Your task to perform on an android device: Open the clock app Image 0: 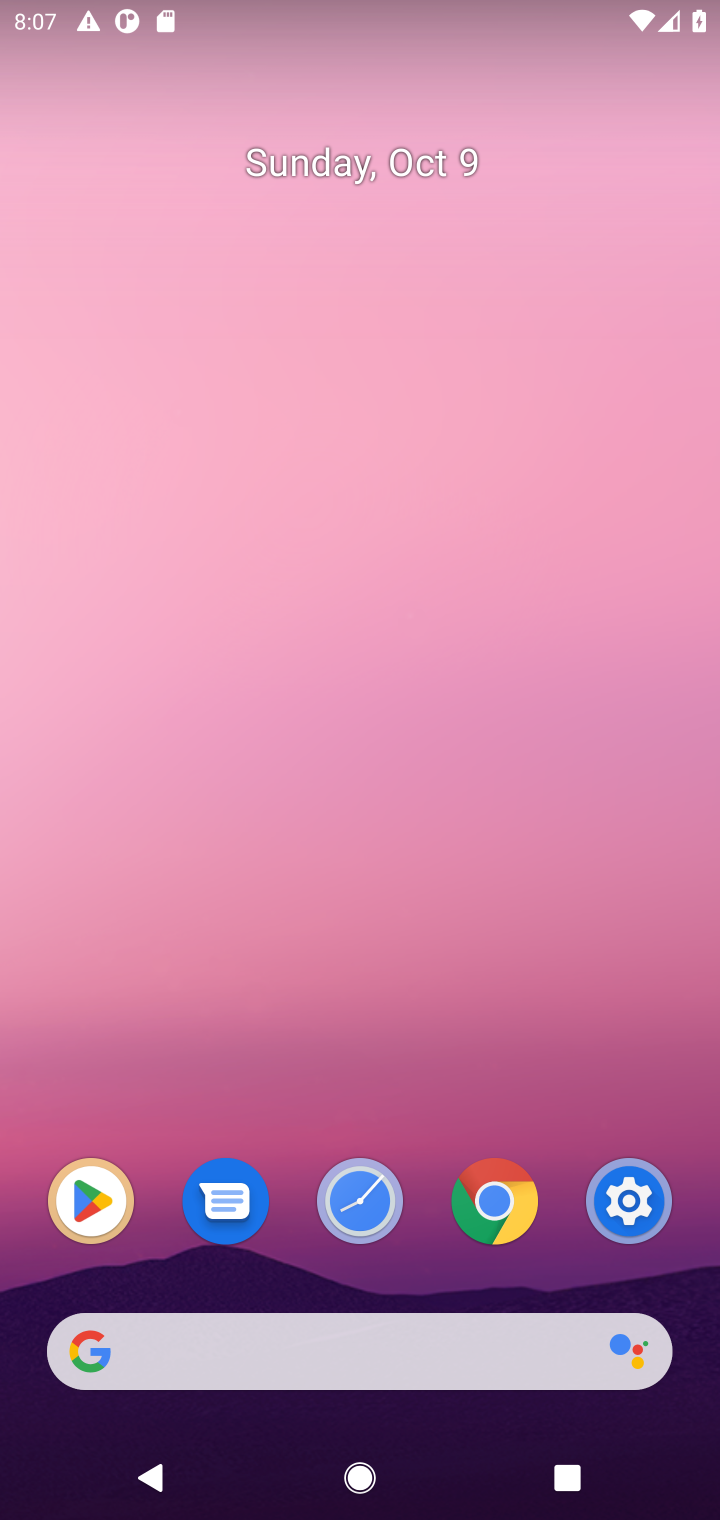
Step 0: click (369, 1193)
Your task to perform on an android device: Open the clock app Image 1: 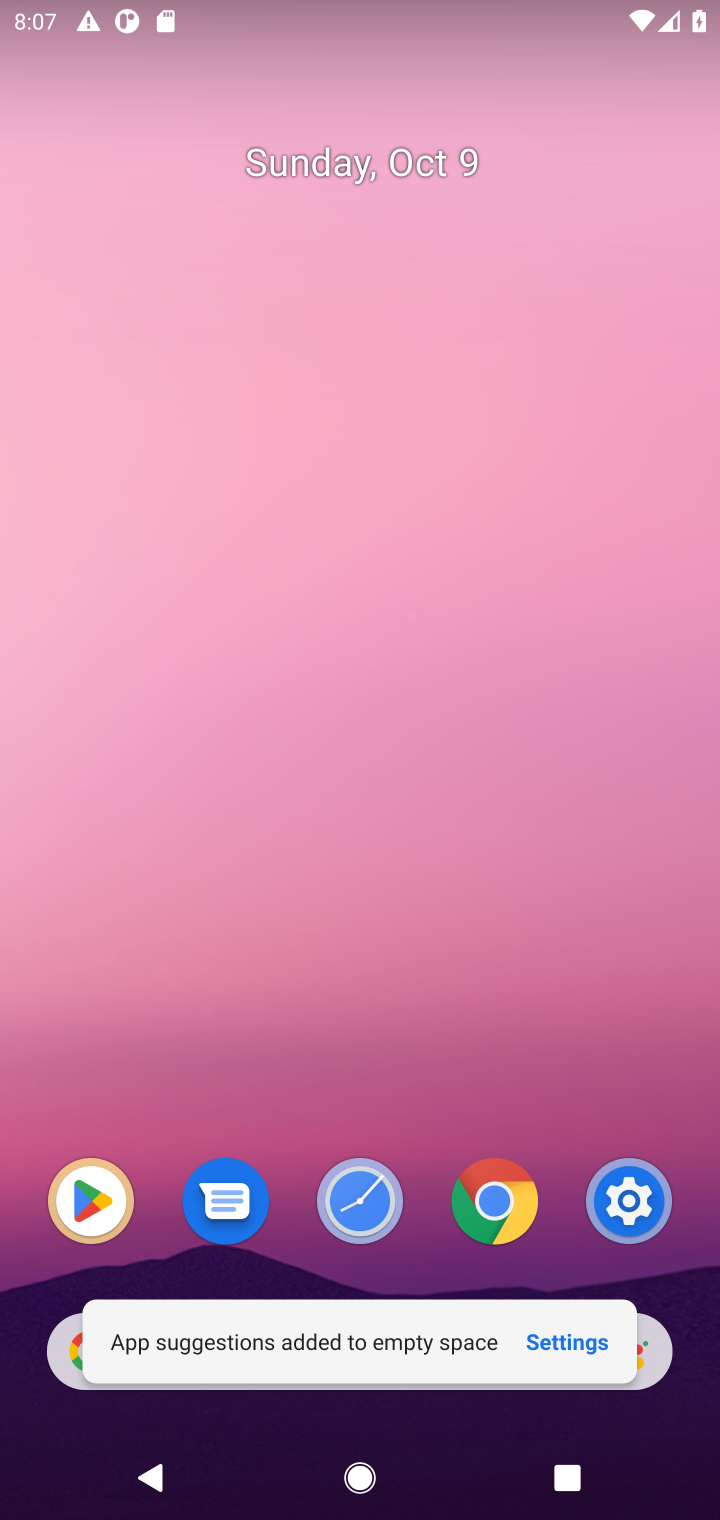
Step 1: click (346, 1184)
Your task to perform on an android device: Open the clock app Image 2: 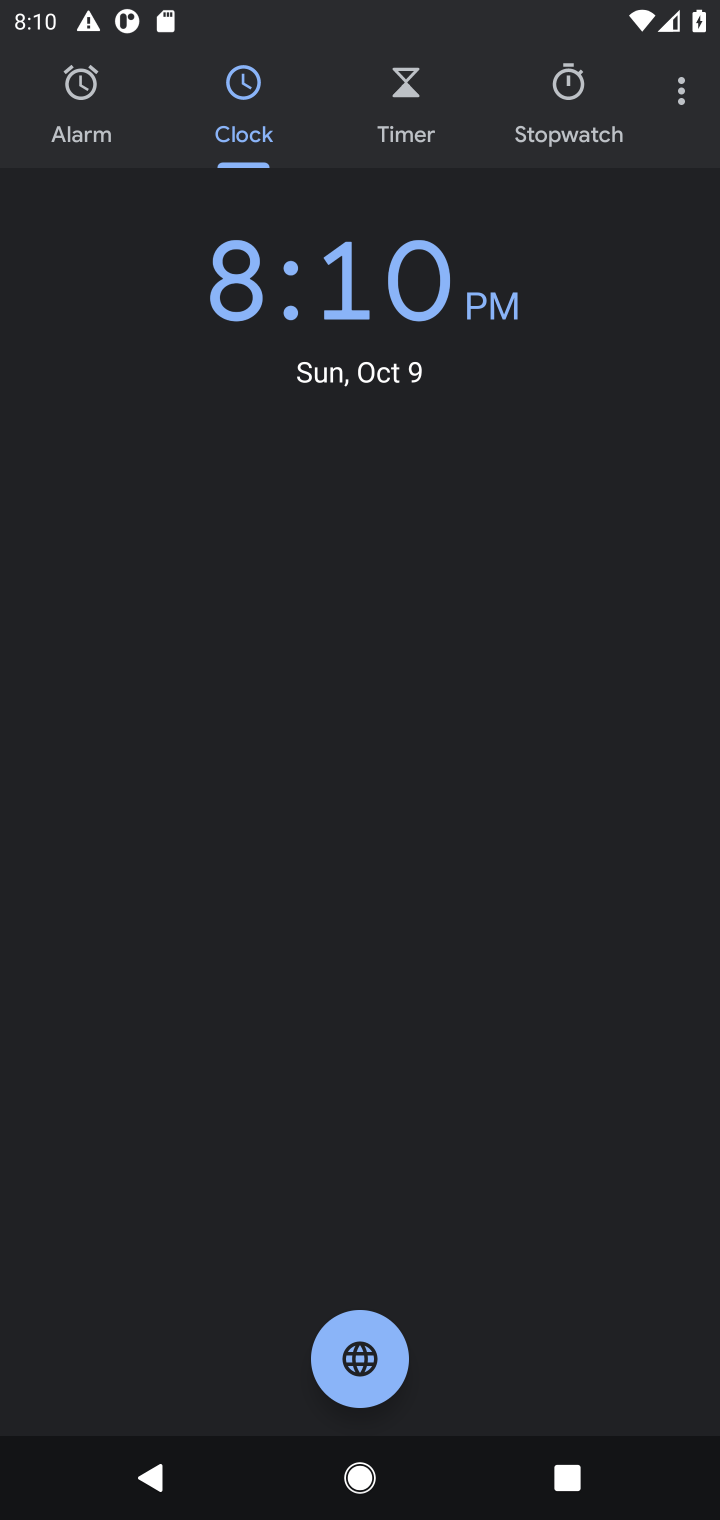
Step 2: task complete